Your task to perform on an android device: Open network settings Image 0: 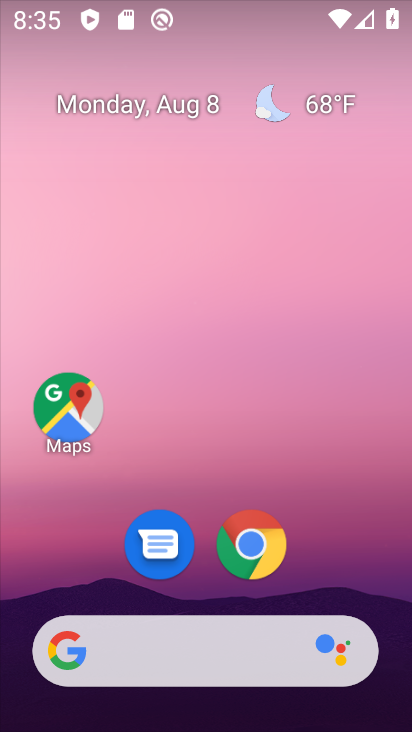
Step 0: press home button
Your task to perform on an android device: Open network settings Image 1: 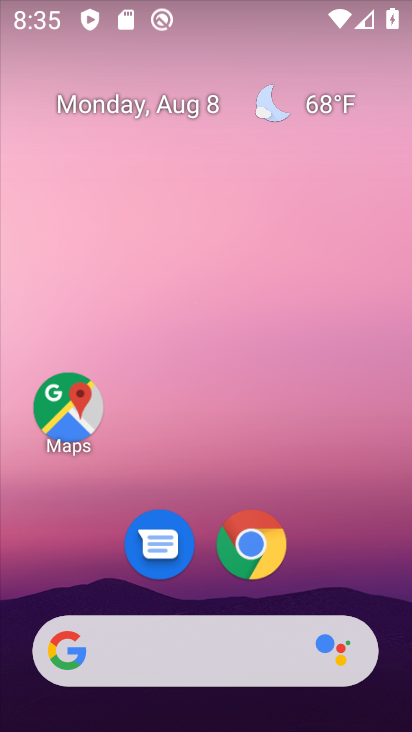
Step 1: drag from (323, 578) to (334, 0)
Your task to perform on an android device: Open network settings Image 2: 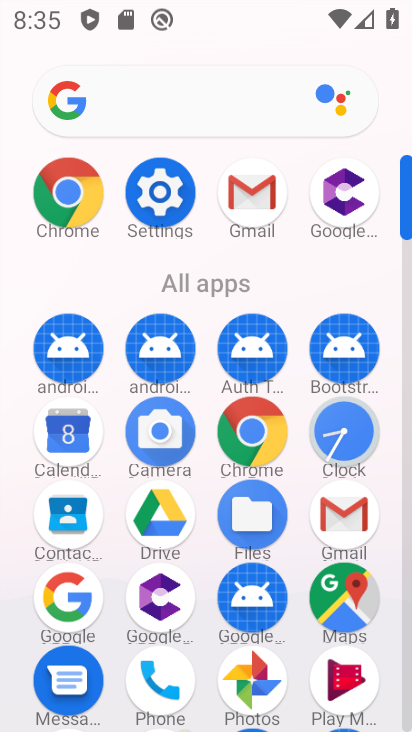
Step 2: click (159, 183)
Your task to perform on an android device: Open network settings Image 3: 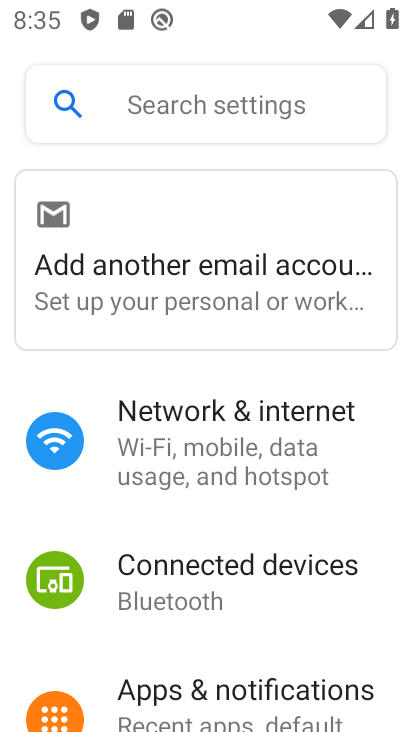
Step 3: click (210, 435)
Your task to perform on an android device: Open network settings Image 4: 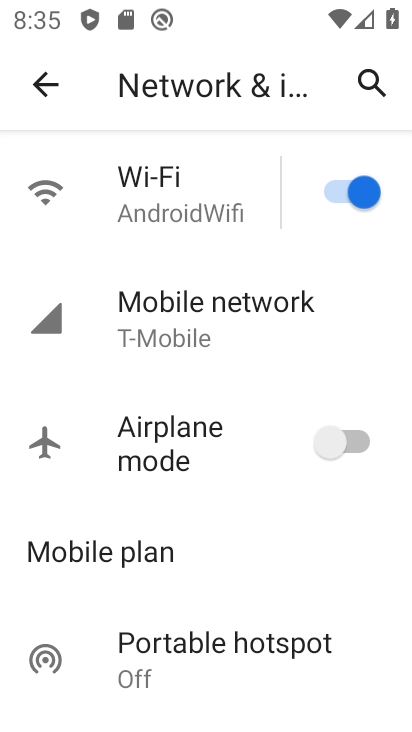
Step 4: drag from (227, 611) to (233, 164)
Your task to perform on an android device: Open network settings Image 5: 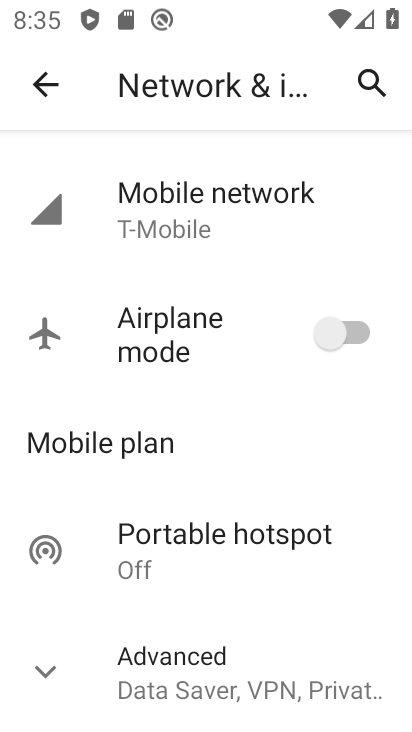
Step 5: click (47, 672)
Your task to perform on an android device: Open network settings Image 6: 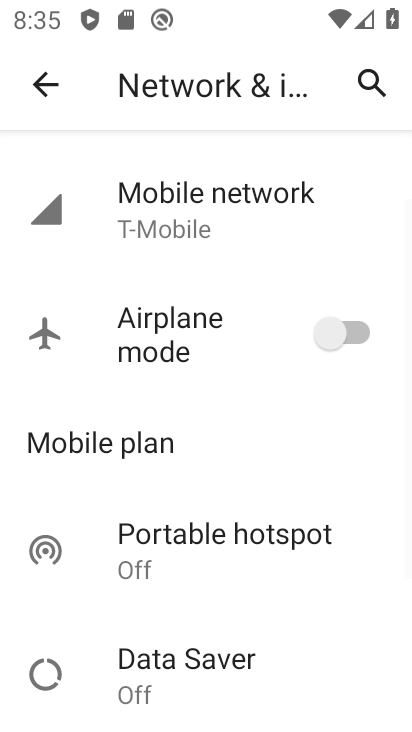
Step 6: task complete